Your task to perform on an android device: Search for seafood restaurants on Google Maps Image 0: 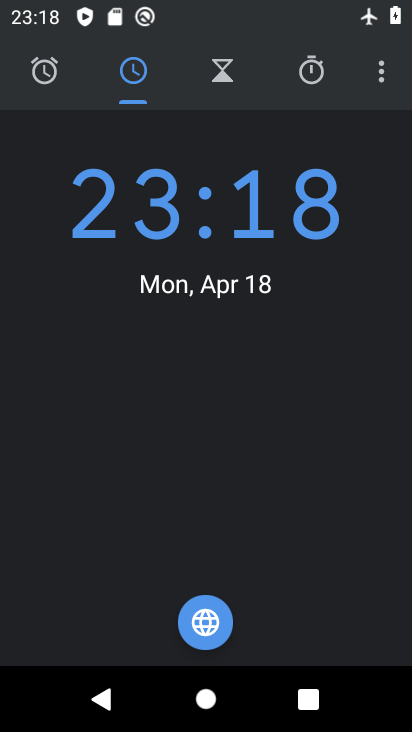
Step 0: press home button
Your task to perform on an android device: Search for seafood restaurants on Google Maps Image 1: 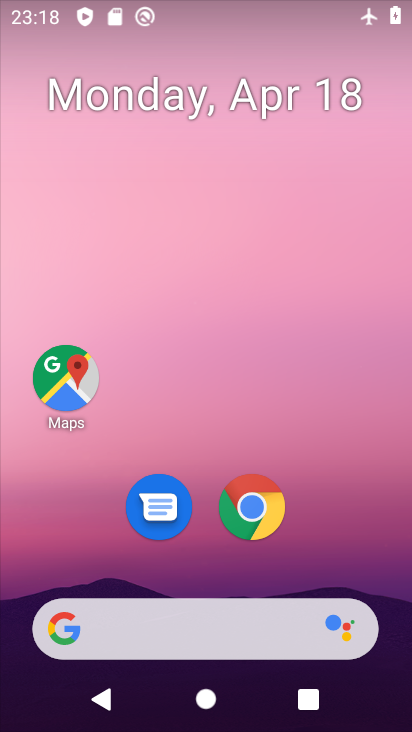
Step 1: click (68, 377)
Your task to perform on an android device: Search for seafood restaurants on Google Maps Image 2: 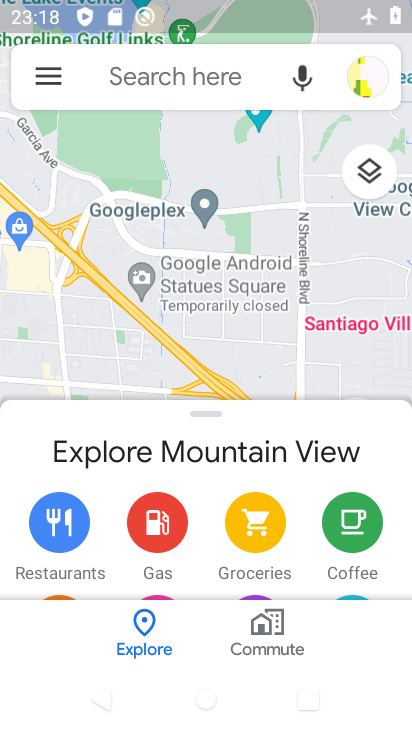
Step 2: click (214, 72)
Your task to perform on an android device: Search for seafood restaurants on Google Maps Image 3: 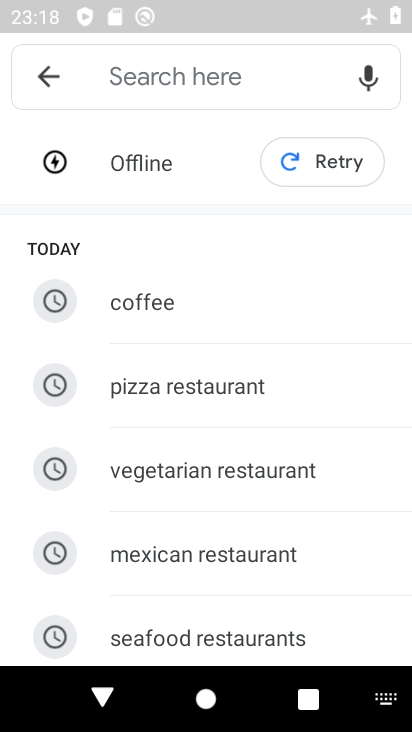
Step 3: click (228, 634)
Your task to perform on an android device: Search for seafood restaurants on Google Maps Image 4: 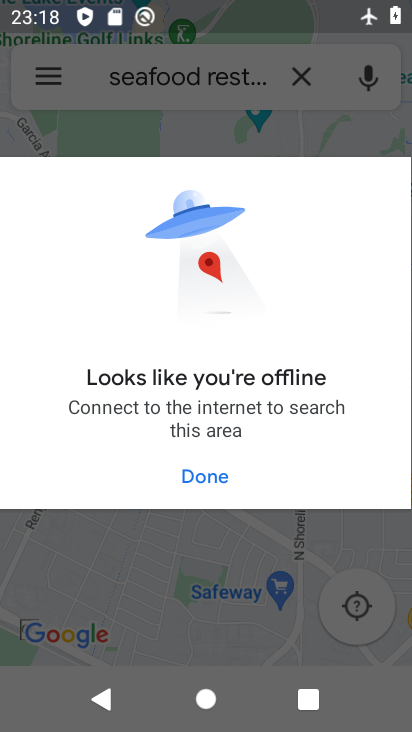
Step 4: task complete